Your task to perform on an android device: Search for Italian restaurants on Maps Image 0: 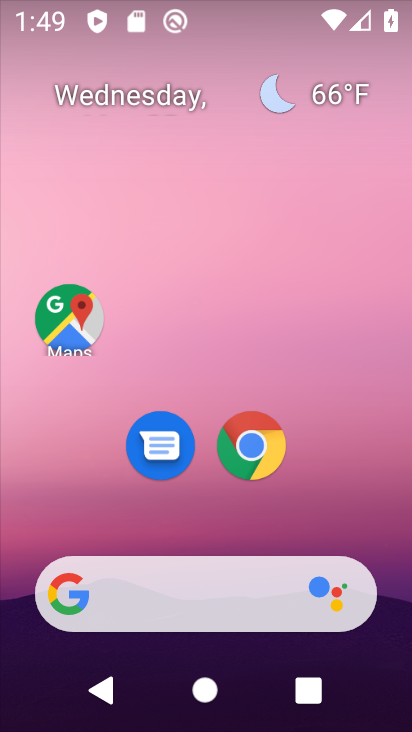
Step 0: click (51, 320)
Your task to perform on an android device: Search for Italian restaurants on Maps Image 1: 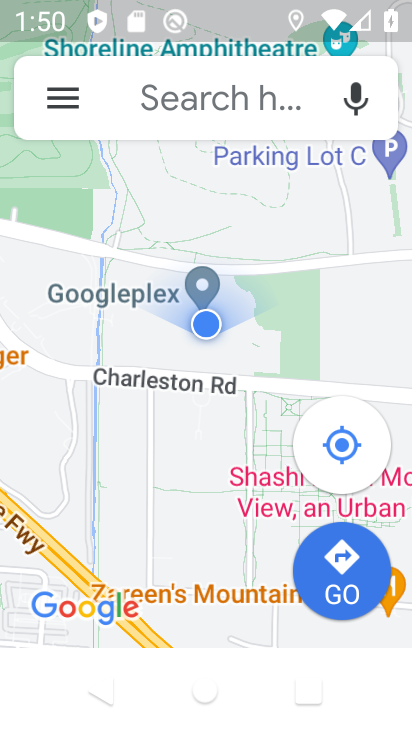
Step 1: click (249, 77)
Your task to perform on an android device: Search for Italian restaurants on Maps Image 2: 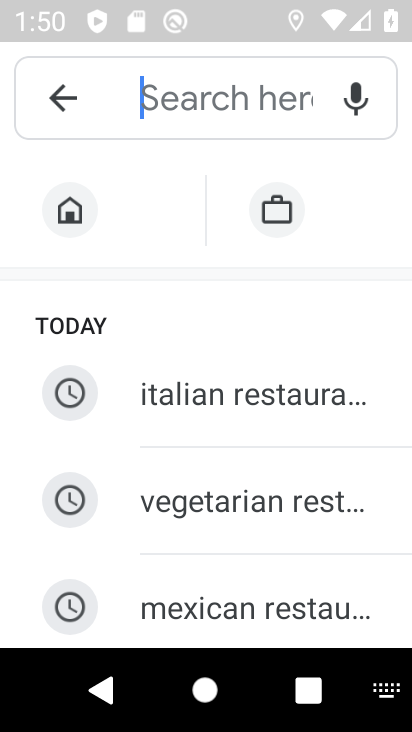
Step 2: click (150, 389)
Your task to perform on an android device: Search for Italian restaurants on Maps Image 3: 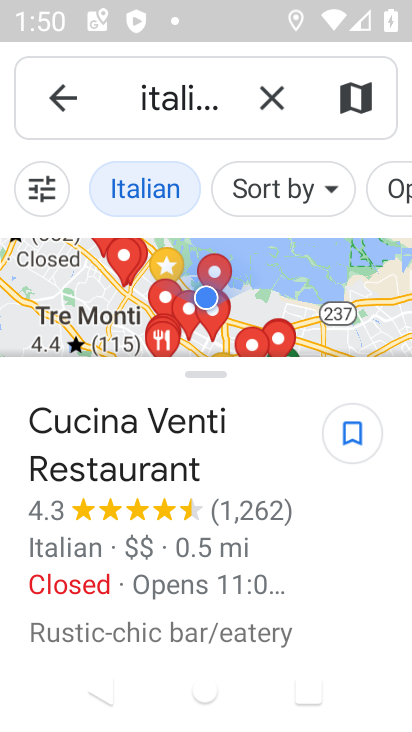
Step 3: task complete